Your task to perform on an android device: Open the calendar app, open the side menu, and click the "Day" option Image 0: 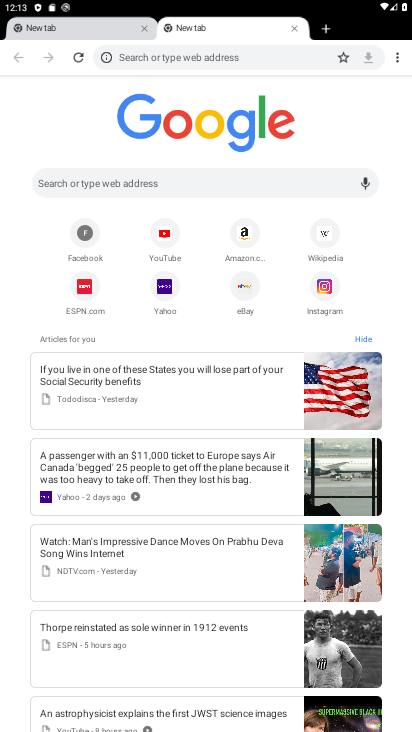
Step 0: press home button
Your task to perform on an android device: Open the calendar app, open the side menu, and click the "Day" option Image 1: 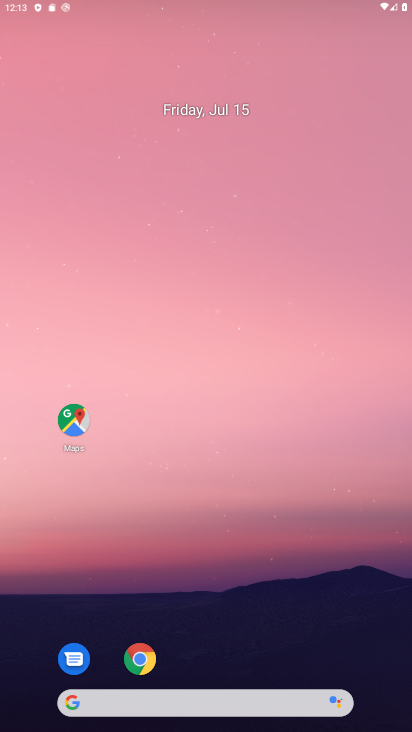
Step 1: drag from (208, 661) to (206, 202)
Your task to perform on an android device: Open the calendar app, open the side menu, and click the "Day" option Image 2: 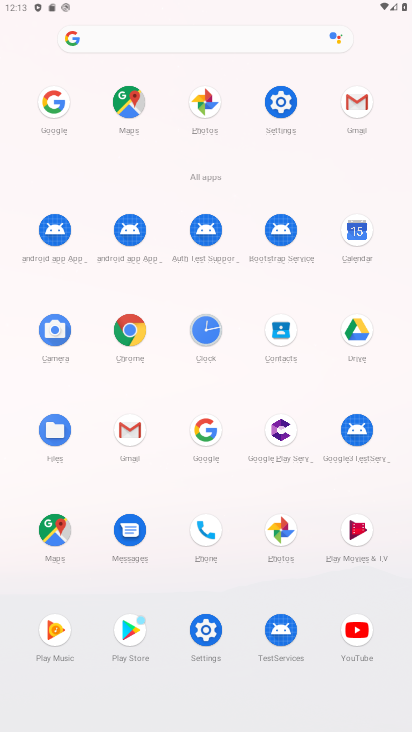
Step 2: click (344, 232)
Your task to perform on an android device: Open the calendar app, open the side menu, and click the "Day" option Image 3: 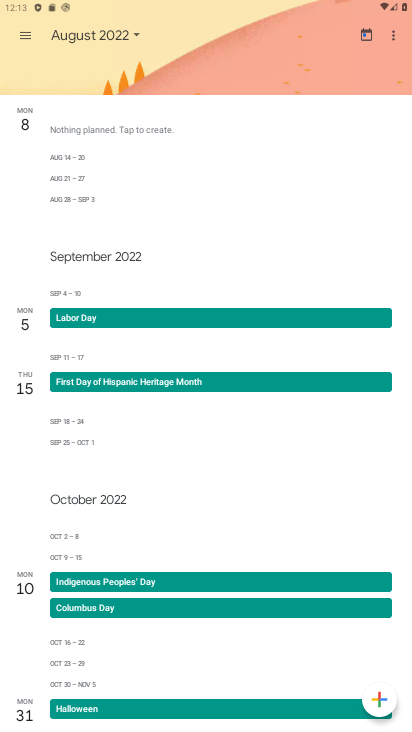
Step 3: click (28, 35)
Your task to perform on an android device: Open the calendar app, open the side menu, and click the "Day" option Image 4: 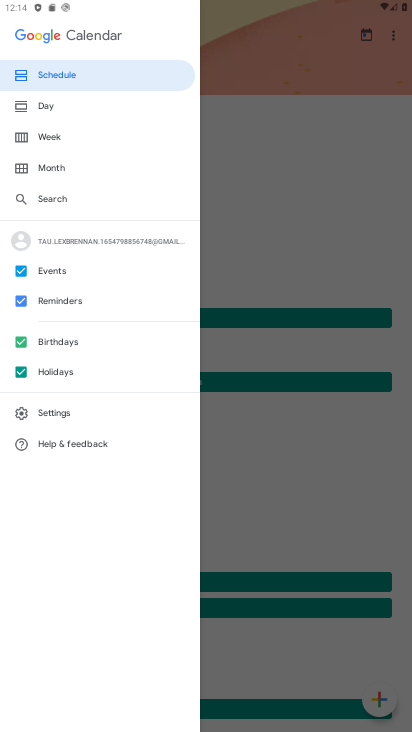
Step 4: click (43, 111)
Your task to perform on an android device: Open the calendar app, open the side menu, and click the "Day" option Image 5: 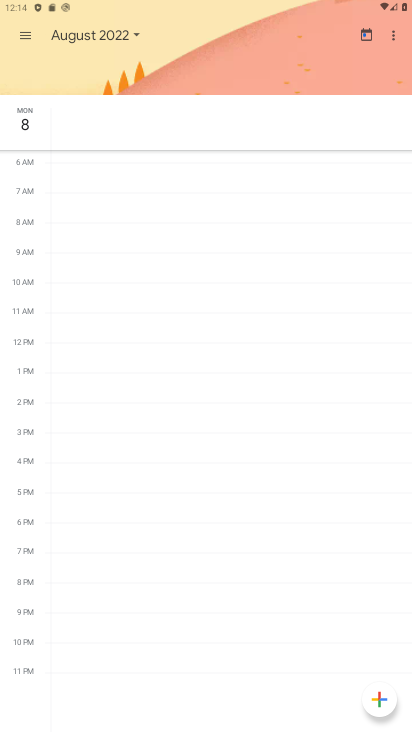
Step 5: task complete